Your task to perform on an android device: toggle wifi Image 0: 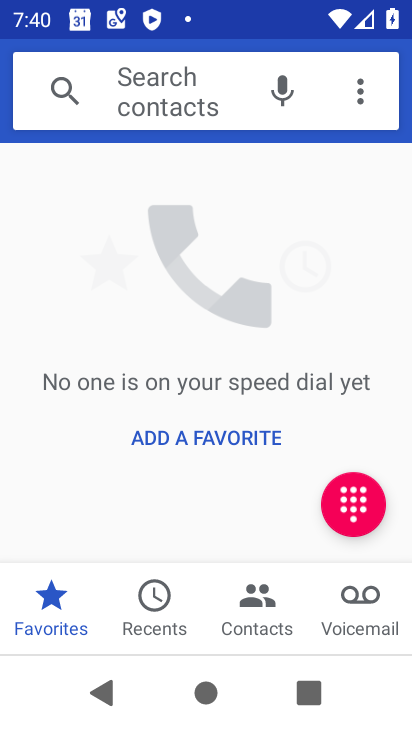
Step 0: press home button
Your task to perform on an android device: toggle wifi Image 1: 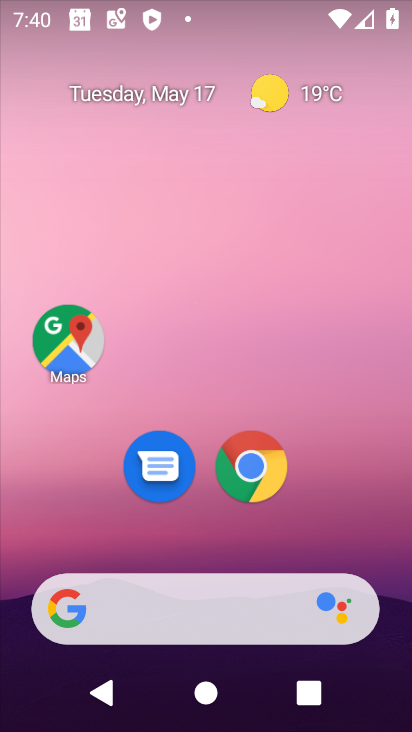
Step 1: drag from (264, 201) to (312, 82)
Your task to perform on an android device: toggle wifi Image 2: 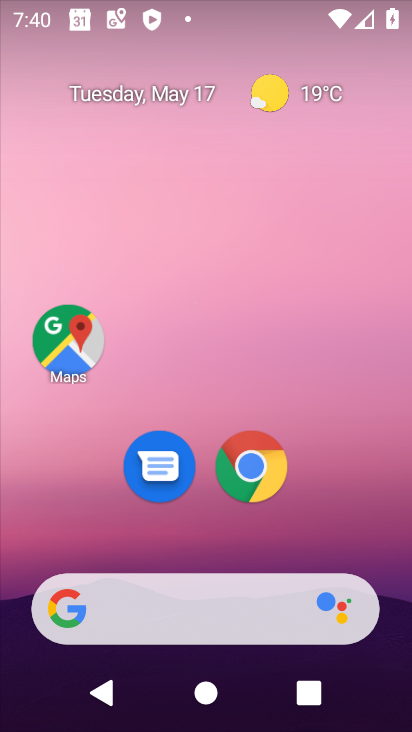
Step 2: drag from (184, 591) to (392, 4)
Your task to perform on an android device: toggle wifi Image 3: 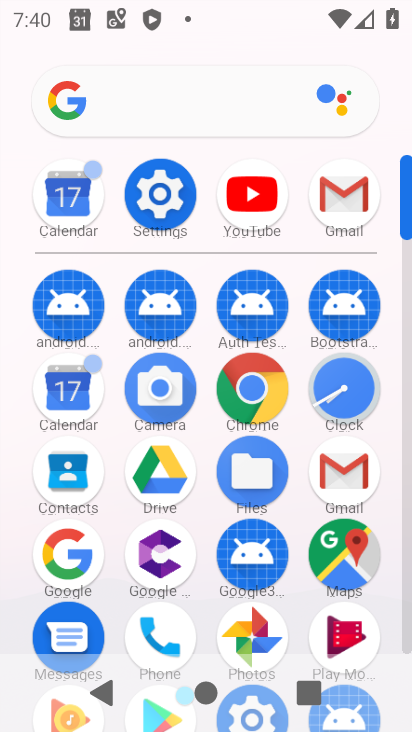
Step 3: click (154, 194)
Your task to perform on an android device: toggle wifi Image 4: 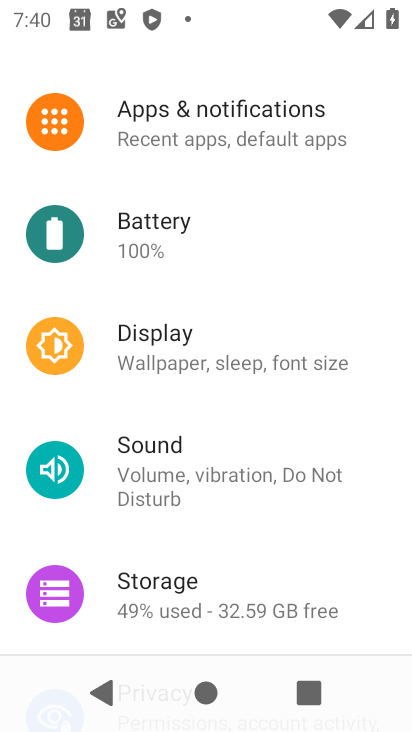
Step 4: drag from (282, 170) to (211, 607)
Your task to perform on an android device: toggle wifi Image 5: 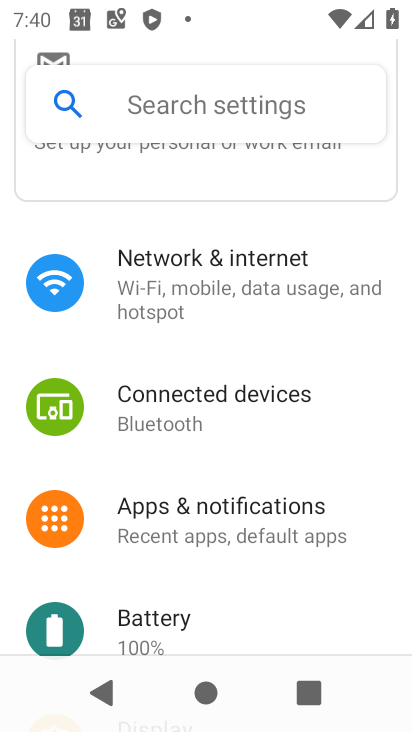
Step 5: click (267, 280)
Your task to perform on an android device: toggle wifi Image 6: 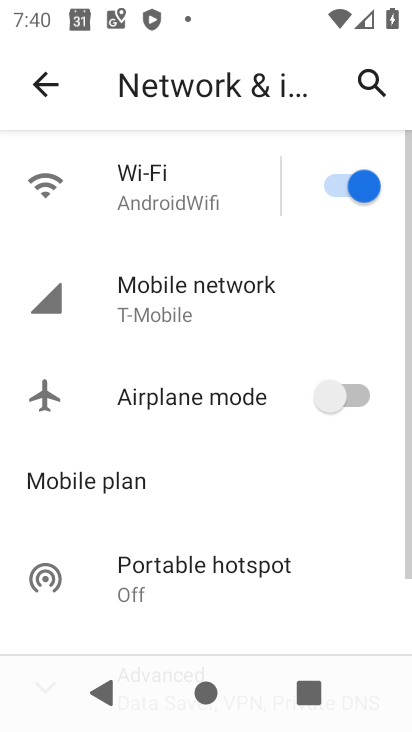
Step 6: click (332, 184)
Your task to perform on an android device: toggle wifi Image 7: 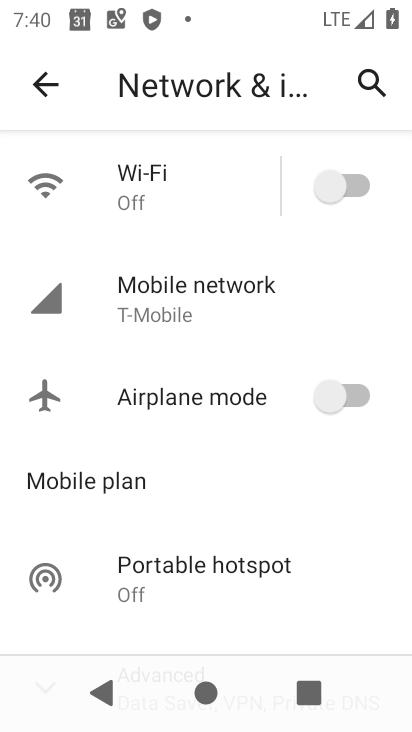
Step 7: task complete